Your task to perform on an android device: Go to notification settings Image 0: 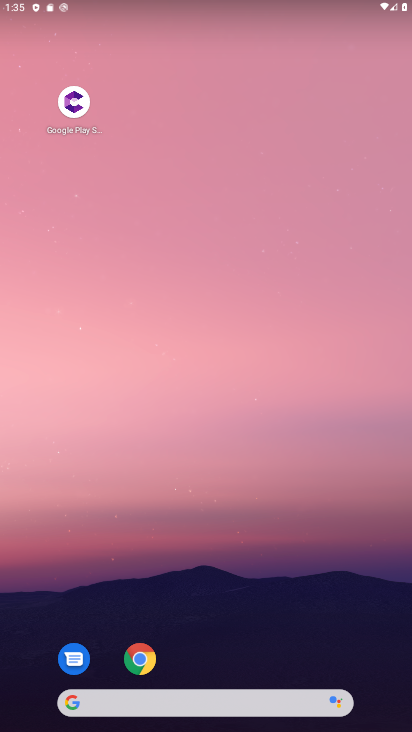
Step 0: drag from (229, 600) to (190, 78)
Your task to perform on an android device: Go to notification settings Image 1: 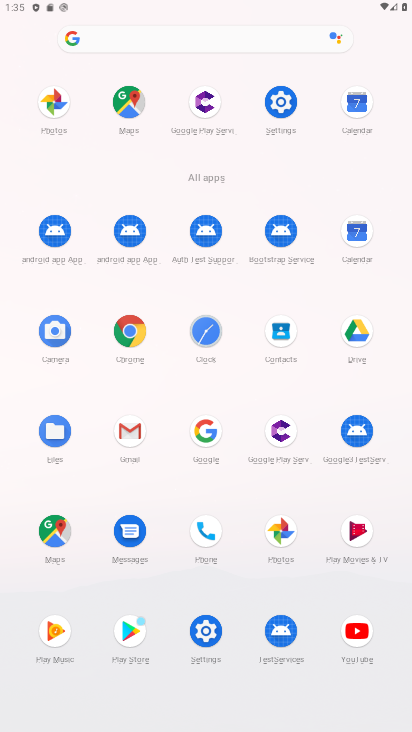
Step 1: click (284, 105)
Your task to perform on an android device: Go to notification settings Image 2: 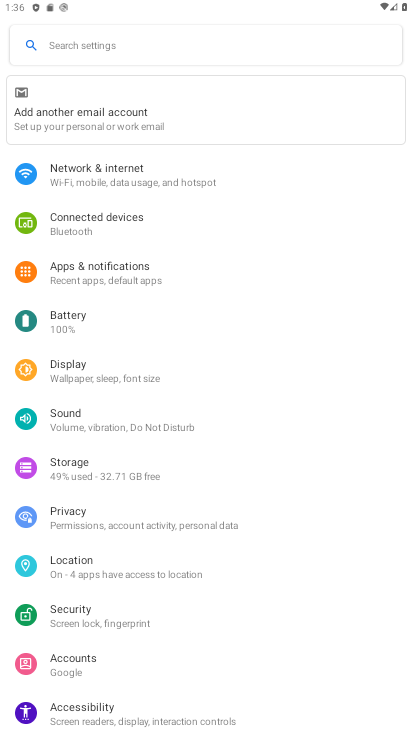
Step 2: click (90, 274)
Your task to perform on an android device: Go to notification settings Image 3: 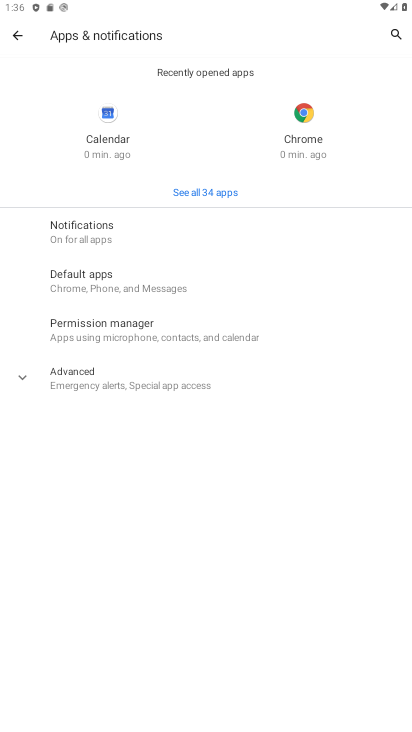
Step 3: click (86, 234)
Your task to perform on an android device: Go to notification settings Image 4: 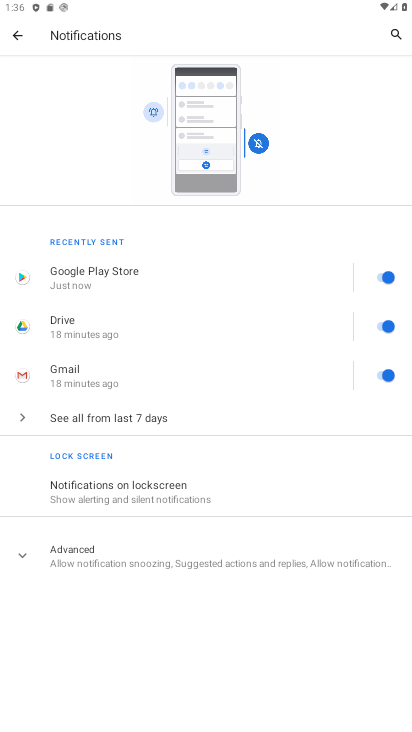
Step 4: task complete